Your task to perform on an android device: Search for the best rated kitchen reno kits on Lowes.com Image 0: 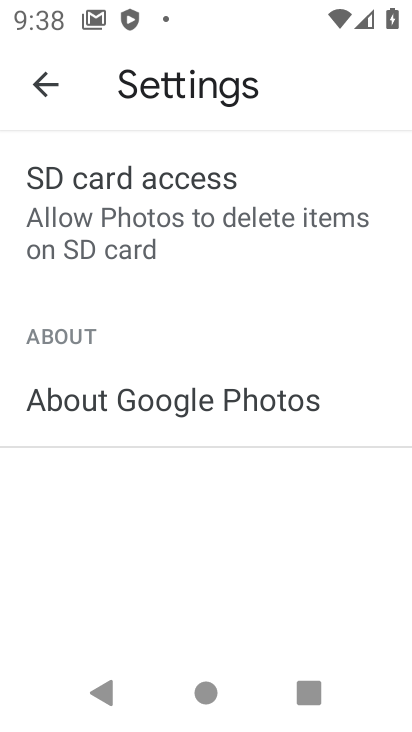
Step 0: press home button
Your task to perform on an android device: Search for the best rated kitchen reno kits on Lowes.com Image 1: 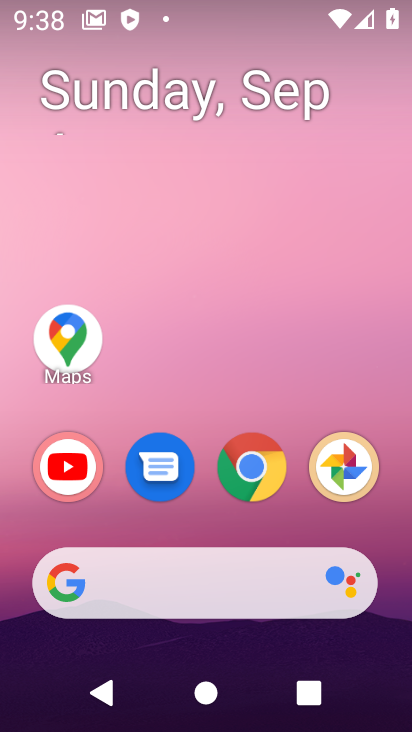
Step 1: click (250, 477)
Your task to perform on an android device: Search for the best rated kitchen reno kits on Lowes.com Image 2: 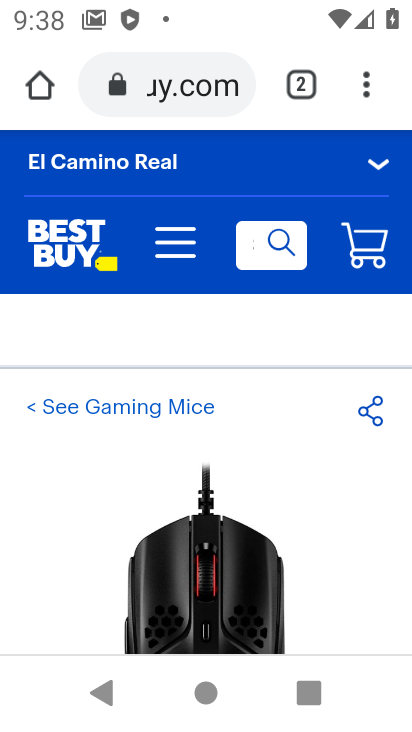
Step 2: click (209, 94)
Your task to perform on an android device: Search for the best rated kitchen reno kits on Lowes.com Image 3: 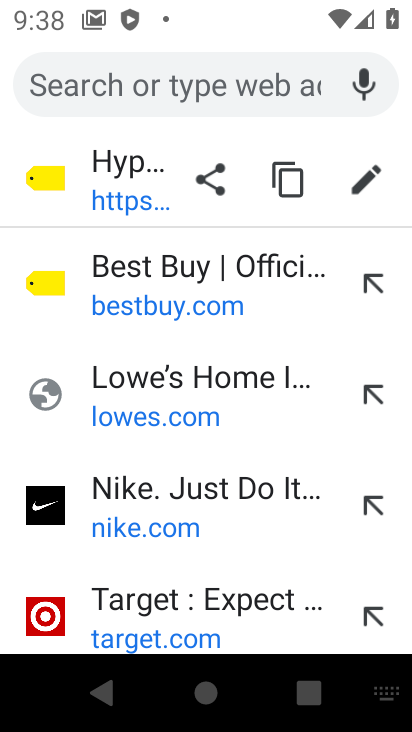
Step 3: type "lowes.com"
Your task to perform on an android device: Search for the best rated kitchen reno kits on Lowes.com Image 4: 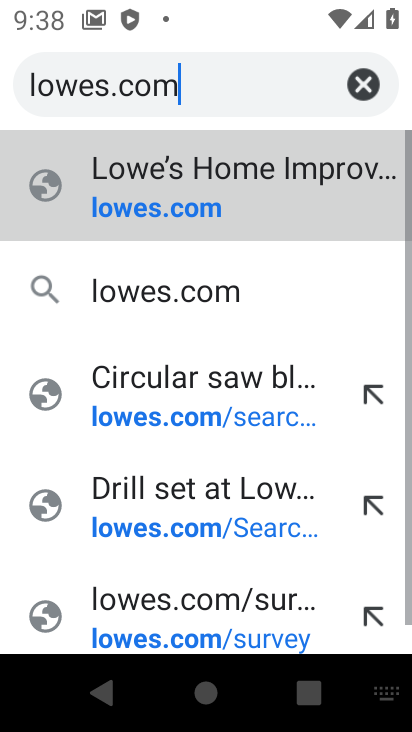
Step 4: type ""
Your task to perform on an android device: Search for the best rated kitchen reno kits on Lowes.com Image 5: 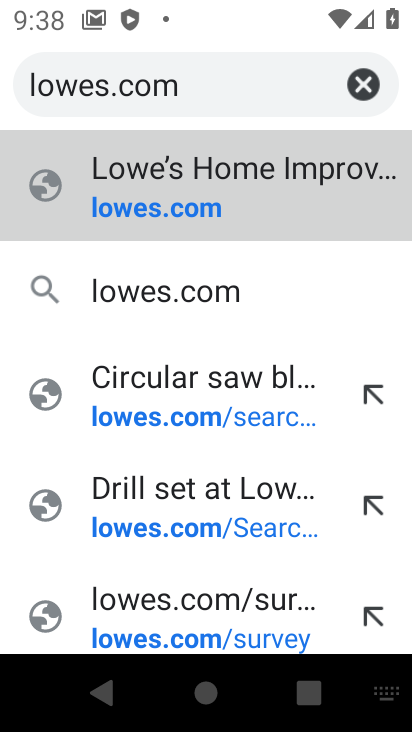
Step 5: click (124, 201)
Your task to perform on an android device: Search for the best rated kitchen reno kits on Lowes.com Image 6: 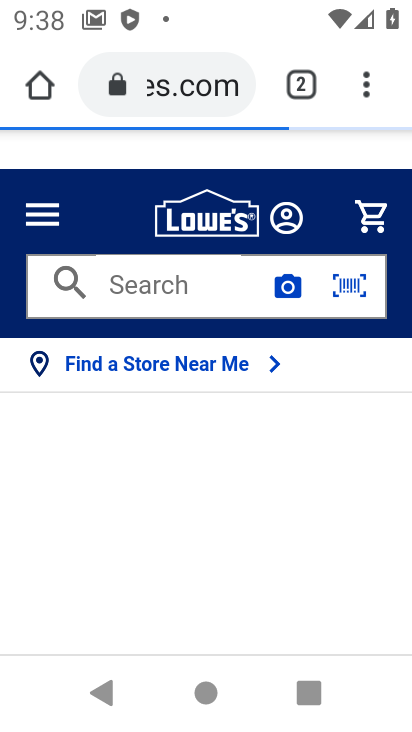
Step 6: click (189, 293)
Your task to perform on an android device: Search for the best rated kitchen reno kits on Lowes.com Image 7: 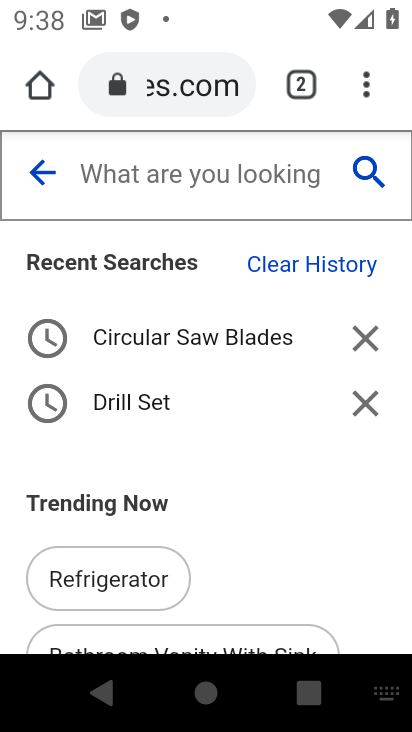
Step 7: type "kitchen reno kits"
Your task to perform on an android device: Search for the best rated kitchen reno kits on Lowes.com Image 8: 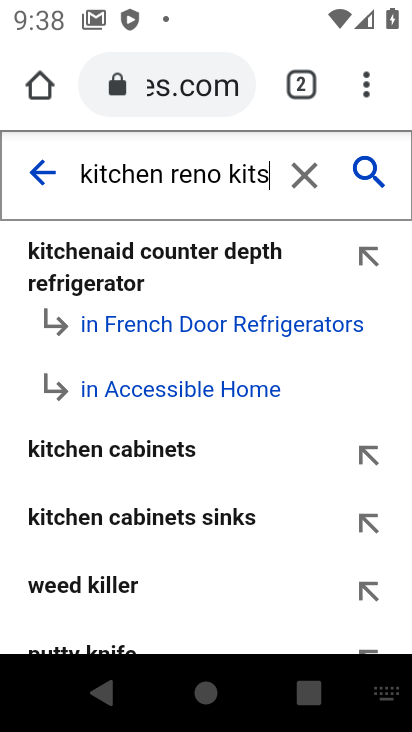
Step 8: type ""
Your task to perform on an android device: Search for the best rated kitchen reno kits on Lowes.com Image 9: 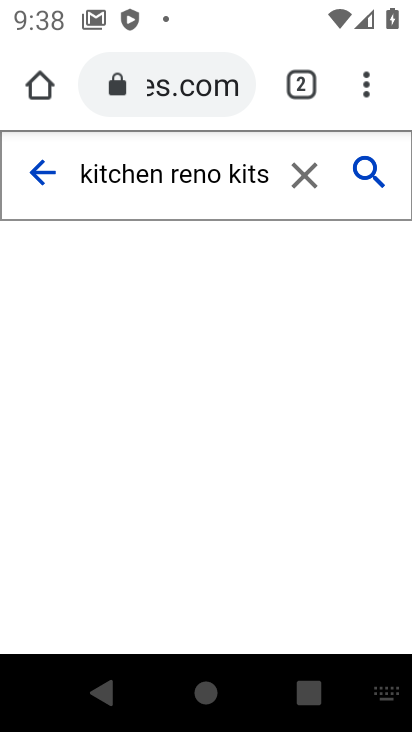
Step 9: click (359, 169)
Your task to perform on an android device: Search for the best rated kitchen reno kits on Lowes.com Image 10: 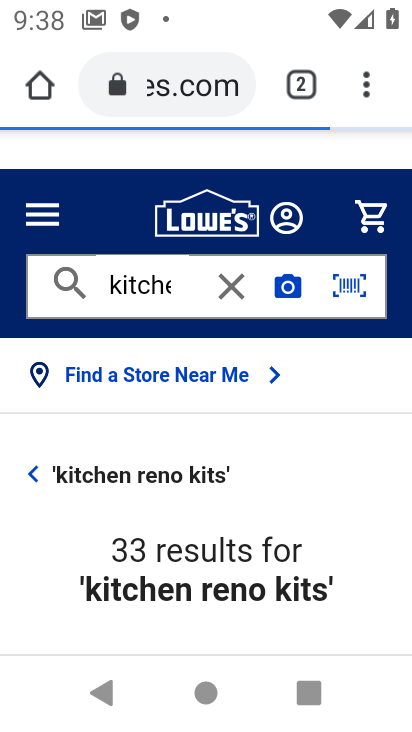
Step 10: drag from (366, 546) to (363, 111)
Your task to perform on an android device: Search for the best rated kitchen reno kits on Lowes.com Image 11: 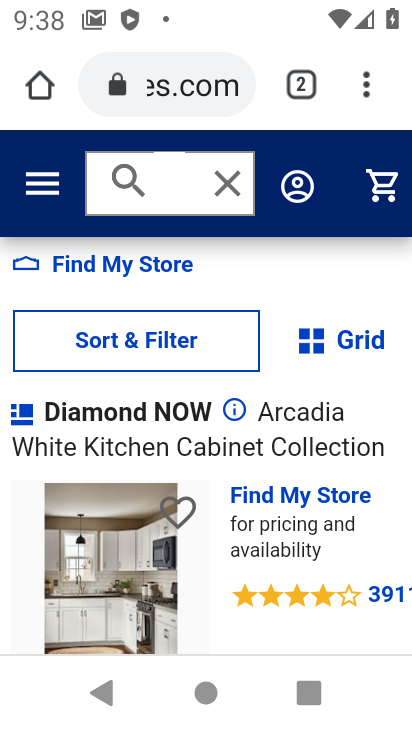
Step 11: drag from (366, 537) to (370, 183)
Your task to perform on an android device: Search for the best rated kitchen reno kits on Lowes.com Image 12: 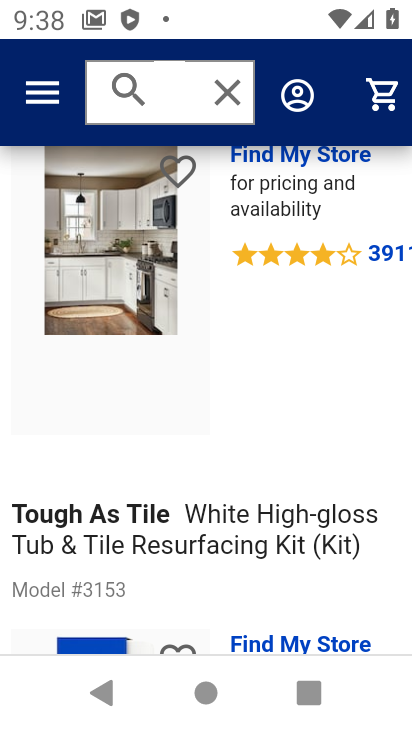
Step 12: drag from (322, 307) to (334, 597)
Your task to perform on an android device: Search for the best rated kitchen reno kits on Lowes.com Image 13: 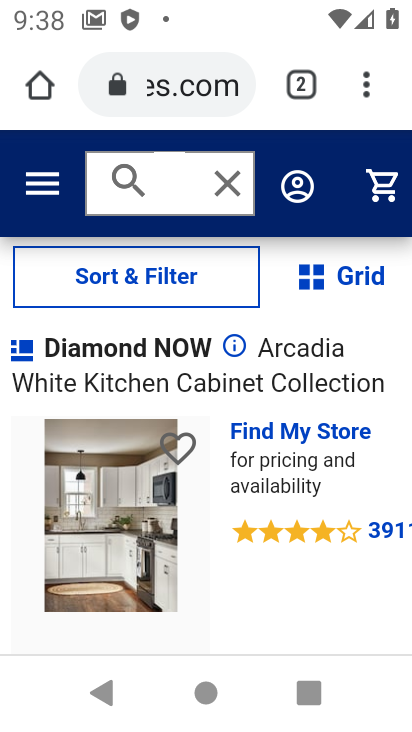
Step 13: click (170, 283)
Your task to perform on an android device: Search for the best rated kitchen reno kits on Lowes.com Image 14: 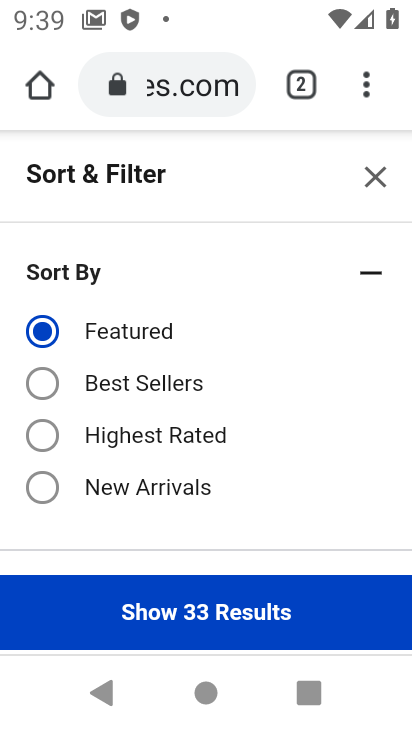
Step 14: click (45, 439)
Your task to perform on an android device: Search for the best rated kitchen reno kits on Lowes.com Image 15: 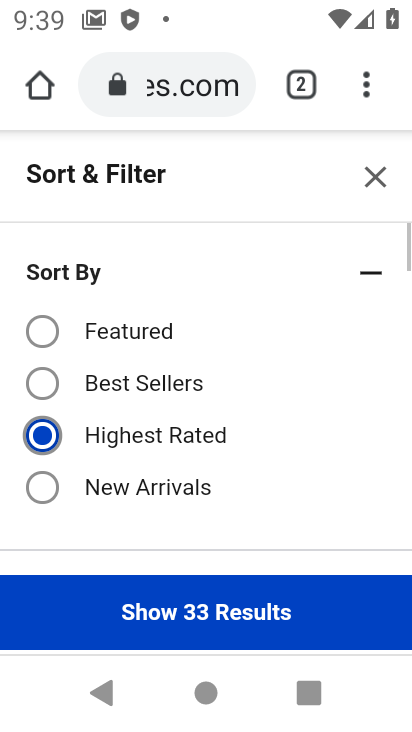
Step 15: drag from (328, 512) to (362, 172)
Your task to perform on an android device: Search for the best rated kitchen reno kits on Lowes.com Image 16: 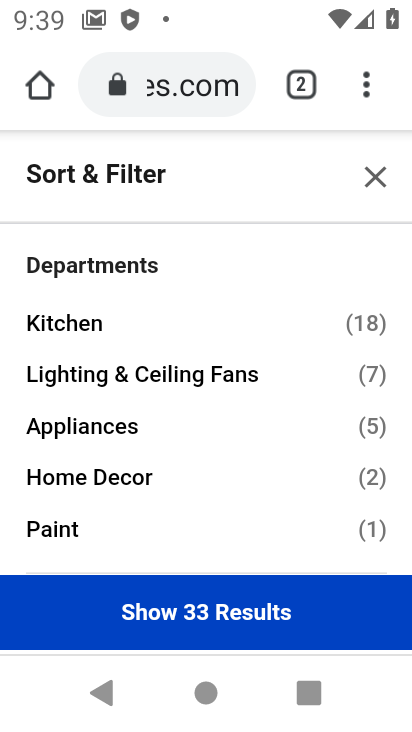
Step 16: drag from (230, 481) to (282, 179)
Your task to perform on an android device: Search for the best rated kitchen reno kits on Lowes.com Image 17: 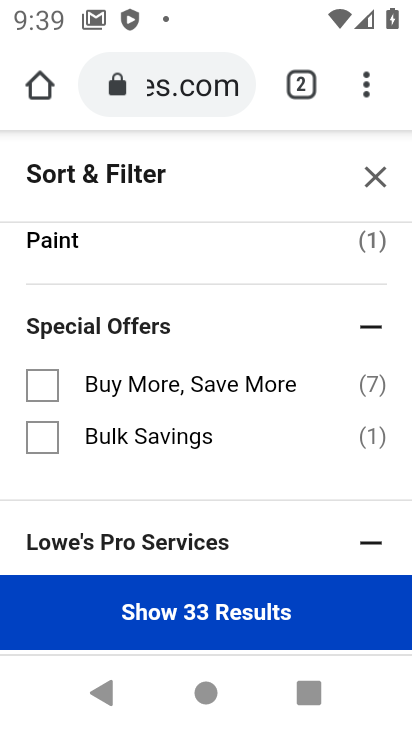
Step 17: drag from (217, 499) to (262, 168)
Your task to perform on an android device: Search for the best rated kitchen reno kits on Lowes.com Image 18: 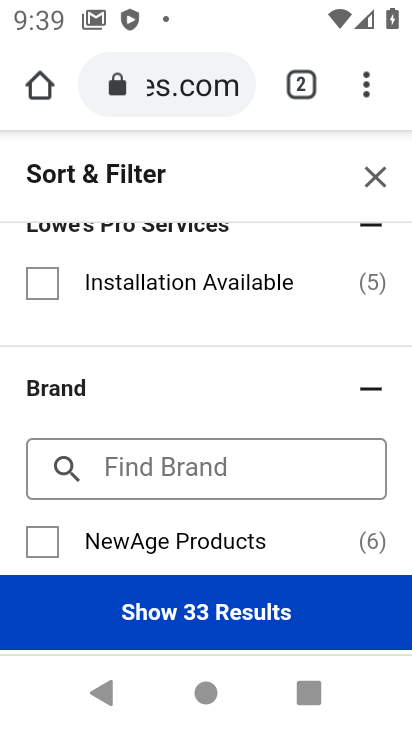
Step 18: drag from (190, 462) to (233, 232)
Your task to perform on an android device: Search for the best rated kitchen reno kits on Lowes.com Image 19: 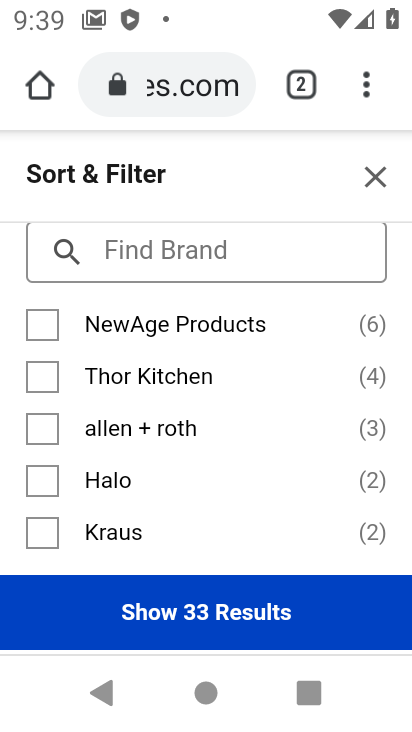
Step 19: drag from (207, 436) to (219, 185)
Your task to perform on an android device: Search for the best rated kitchen reno kits on Lowes.com Image 20: 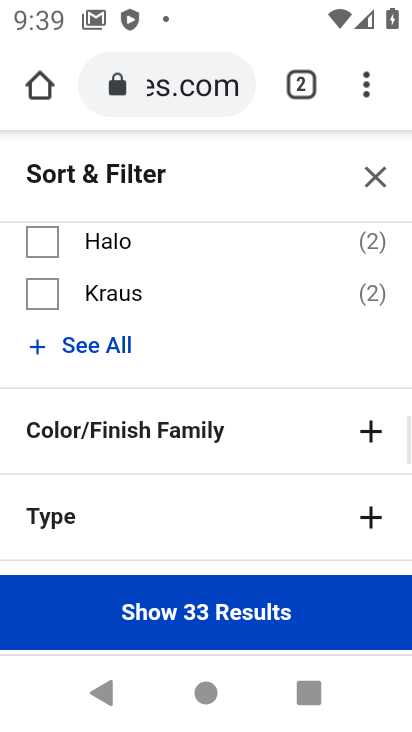
Step 20: drag from (205, 456) to (256, 142)
Your task to perform on an android device: Search for the best rated kitchen reno kits on Lowes.com Image 21: 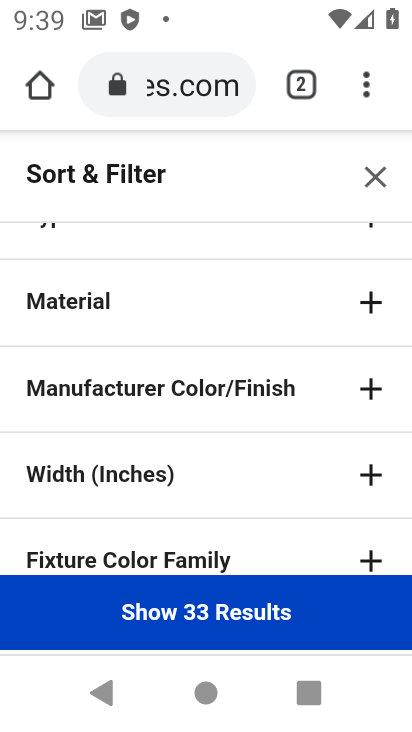
Step 21: drag from (224, 471) to (265, 119)
Your task to perform on an android device: Search for the best rated kitchen reno kits on Lowes.com Image 22: 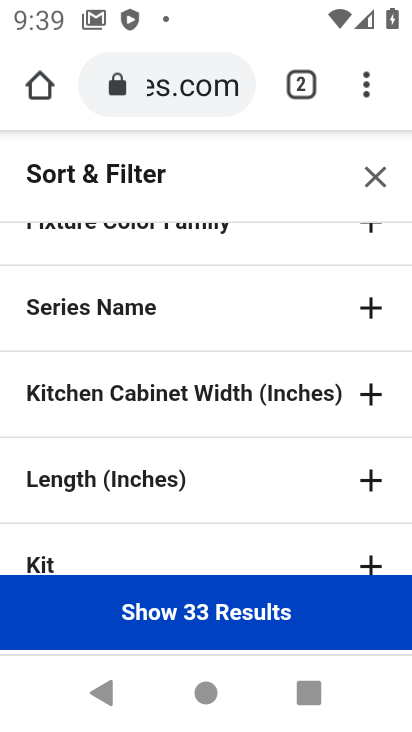
Step 22: drag from (238, 507) to (263, 155)
Your task to perform on an android device: Search for the best rated kitchen reno kits on Lowes.com Image 23: 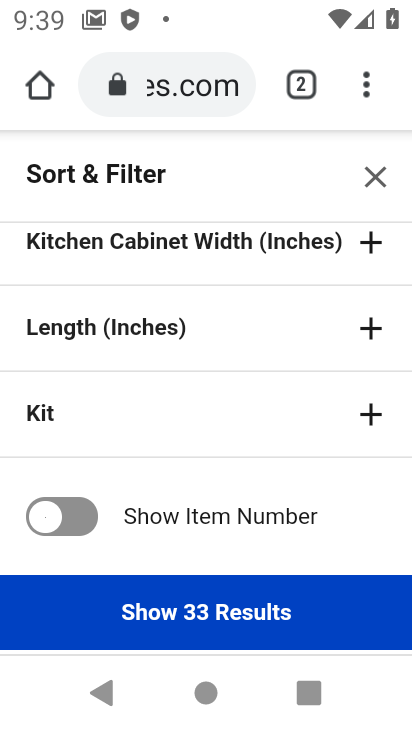
Step 23: drag from (174, 447) to (204, 238)
Your task to perform on an android device: Search for the best rated kitchen reno kits on Lowes.com Image 24: 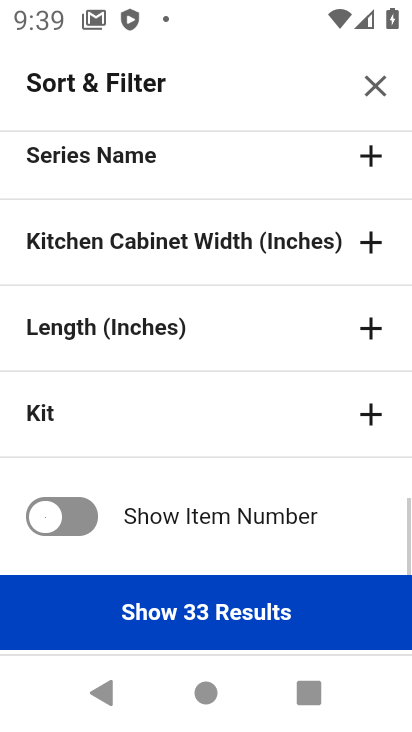
Step 24: click (216, 514)
Your task to perform on an android device: Search for the best rated kitchen reno kits on Lowes.com Image 25: 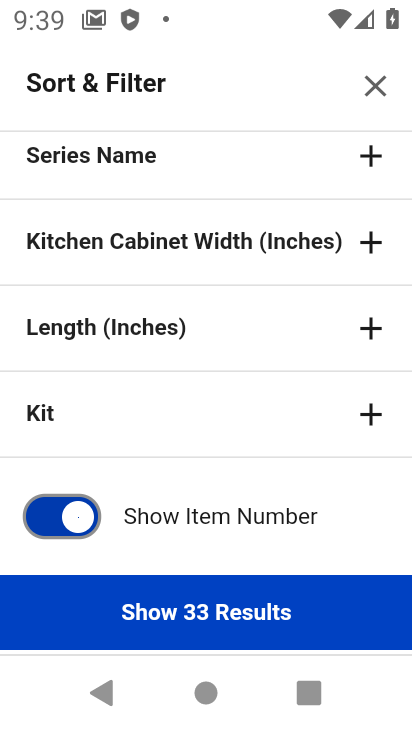
Step 25: click (296, 622)
Your task to perform on an android device: Search for the best rated kitchen reno kits on Lowes.com Image 26: 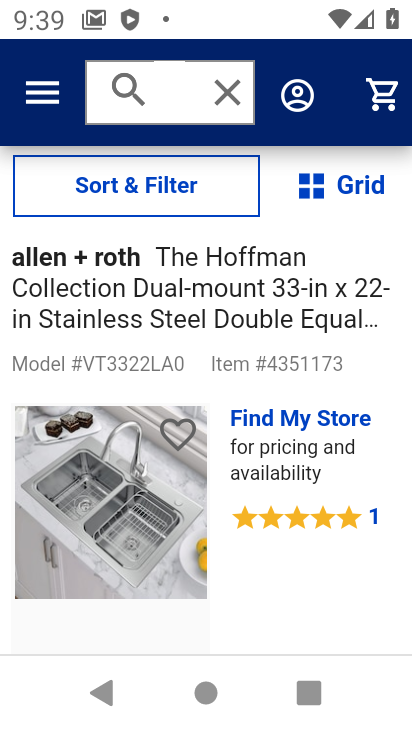
Step 26: drag from (320, 557) to (322, 235)
Your task to perform on an android device: Search for the best rated kitchen reno kits on Lowes.com Image 27: 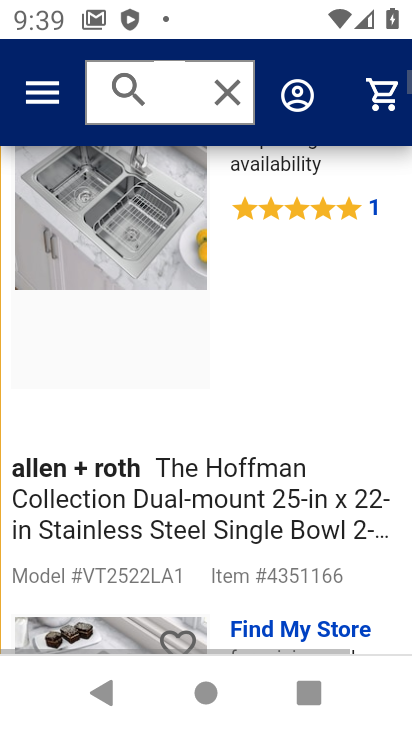
Step 27: drag from (236, 564) to (279, 287)
Your task to perform on an android device: Search for the best rated kitchen reno kits on Lowes.com Image 28: 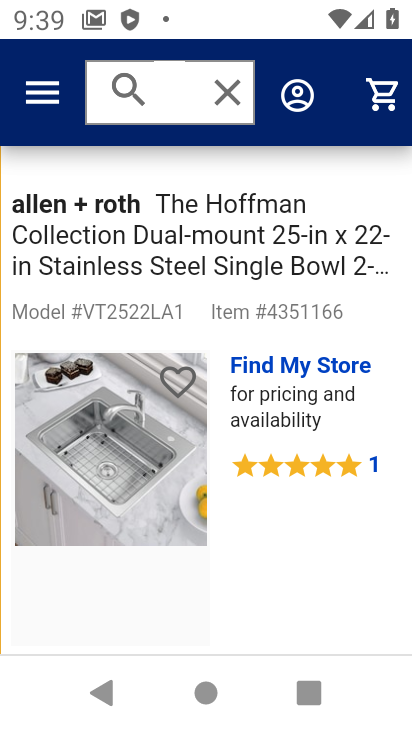
Step 28: drag from (239, 542) to (248, 266)
Your task to perform on an android device: Search for the best rated kitchen reno kits on Lowes.com Image 29: 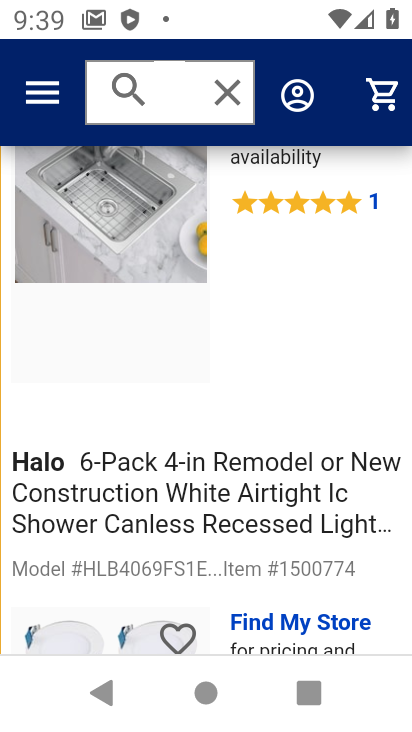
Step 29: drag from (239, 281) to (239, 229)
Your task to perform on an android device: Search for the best rated kitchen reno kits on Lowes.com Image 30: 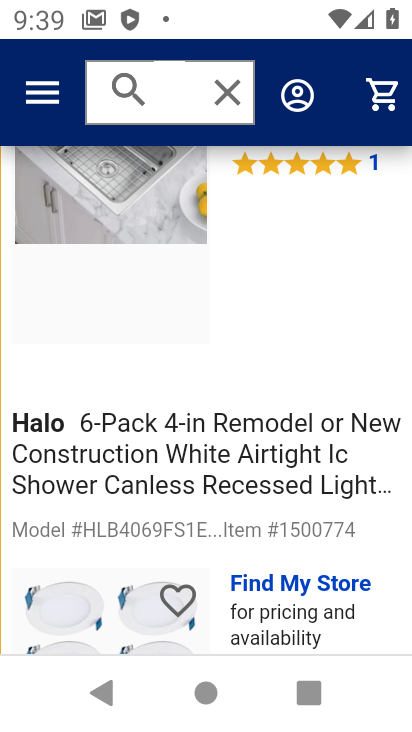
Step 30: drag from (159, 620) to (207, 300)
Your task to perform on an android device: Search for the best rated kitchen reno kits on Lowes.com Image 31: 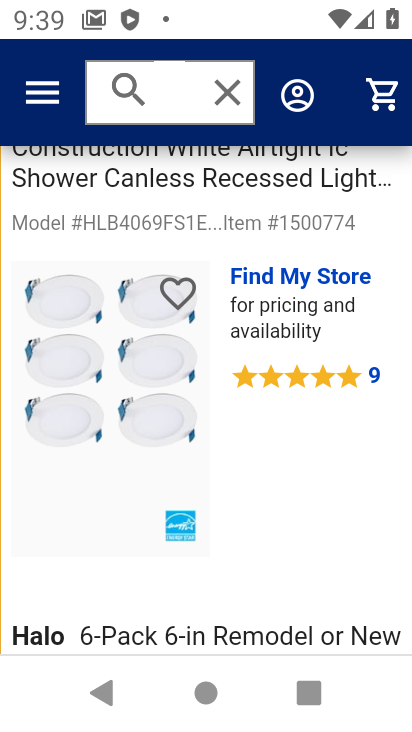
Step 31: drag from (223, 570) to (293, 307)
Your task to perform on an android device: Search for the best rated kitchen reno kits on Lowes.com Image 32: 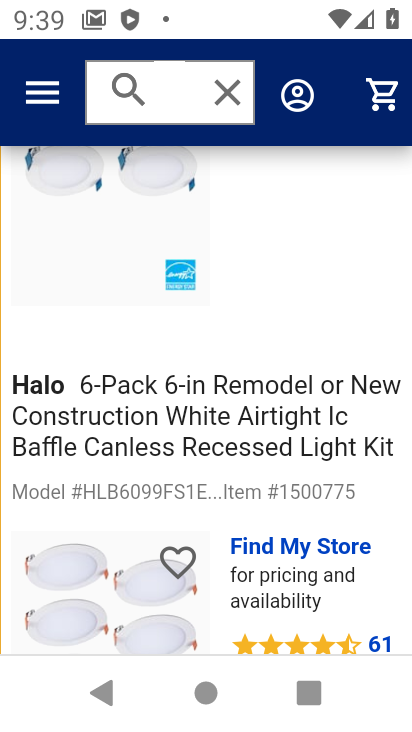
Step 32: drag from (312, 608) to (318, 259)
Your task to perform on an android device: Search for the best rated kitchen reno kits on Lowes.com Image 33: 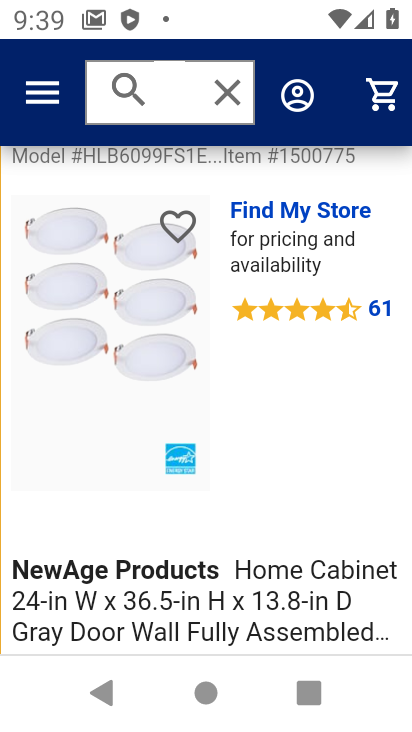
Step 33: drag from (261, 579) to (285, 267)
Your task to perform on an android device: Search for the best rated kitchen reno kits on Lowes.com Image 34: 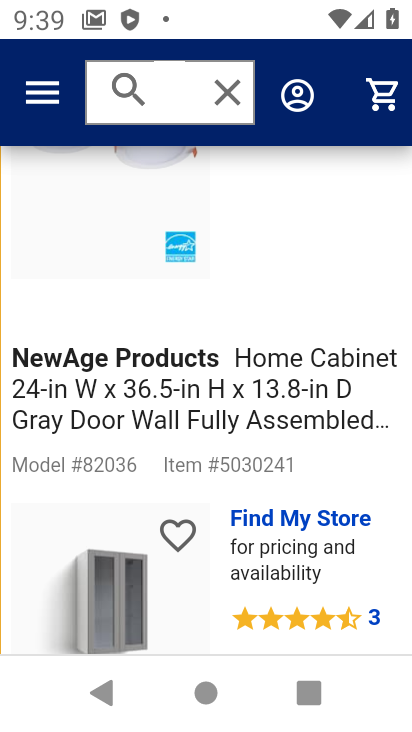
Step 34: drag from (280, 370) to (284, 319)
Your task to perform on an android device: Search for the best rated kitchen reno kits on Lowes.com Image 35: 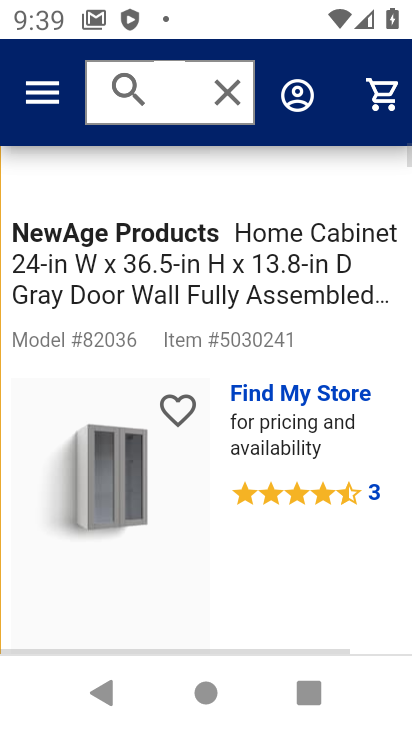
Step 35: drag from (265, 541) to (289, 186)
Your task to perform on an android device: Search for the best rated kitchen reno kits on Lowes.com Image 36: 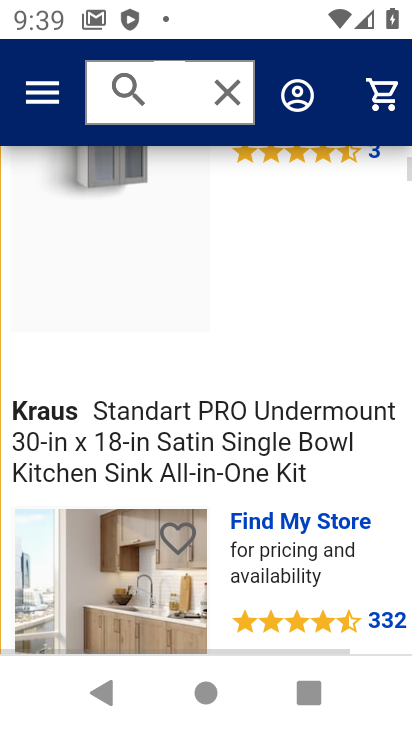
Step 36: drag from (248, 573) to (271, 280)
Your task to perform on an android device: Search for the best rated kitchen reno kits on Lowes.com Image 37: 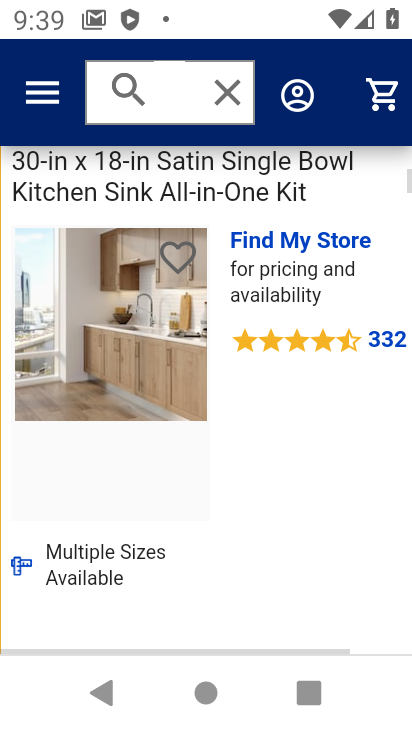
Step 37: drag from (242, 362) to (256, 231)
Your task to perform on an android device: Search for the best rated kitchen reno kits on Lowes.com Image 38: 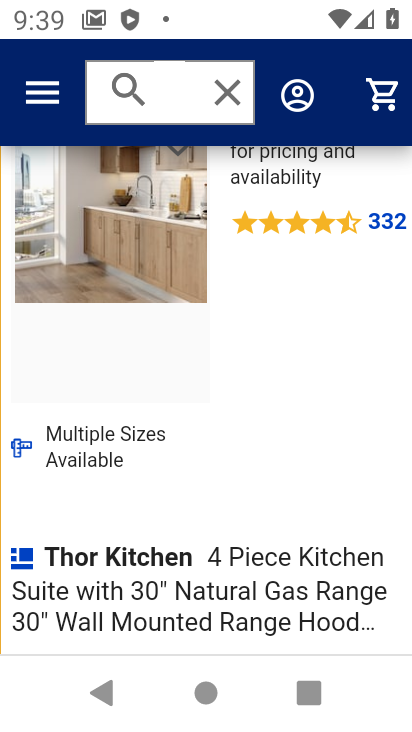
Step 38: drag from (301, 459) to (288, 91)
Your task to perform on an android device: Search for the best rated kitchen reno kits on Lowes.com Image 39: 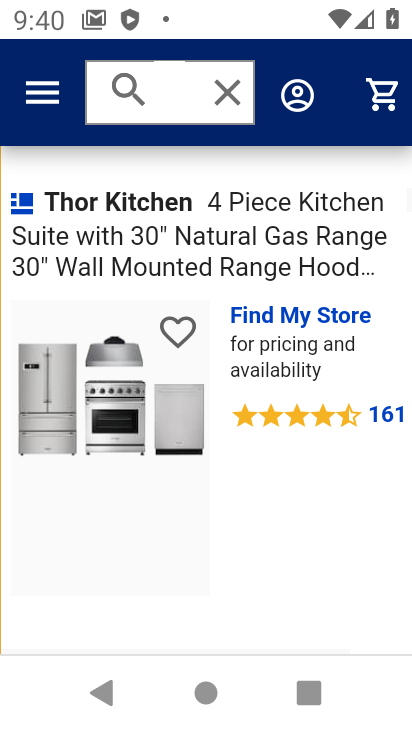
Step 39: drag from (251, 496) to (273, 14)
Your task to perform on an android device: Search for the best rated kitchen reno kits on Lowes.com Image 40: 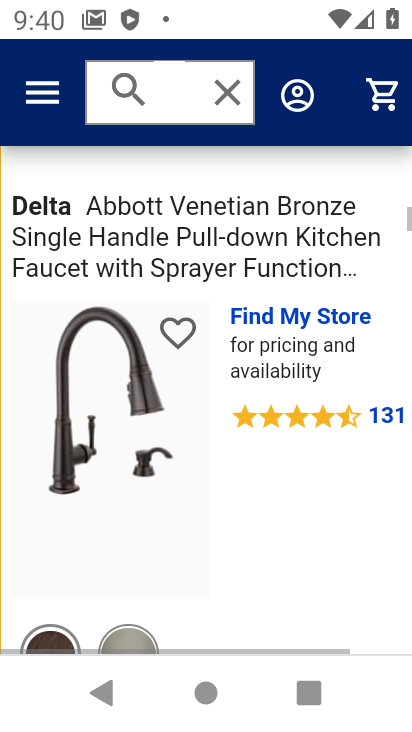
Step 40: drag from (250, 380) to (288, 40)
Your task to perform on an android device: Search for the best rated kitchen reno kits on Lowes.com Image 41: 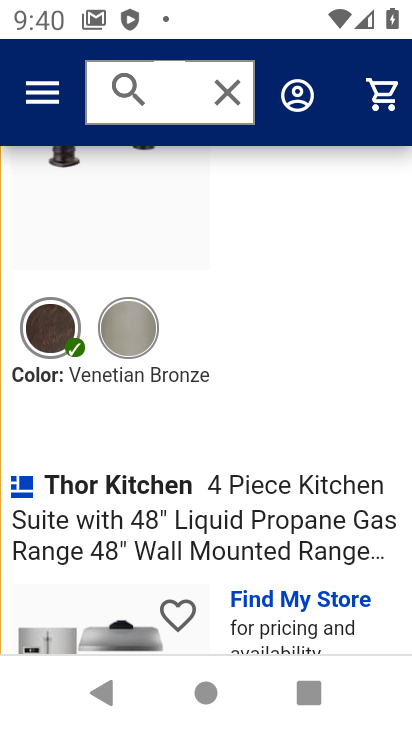
Step 41: drag from (219, 610) to (274, 225)
Your task to perform on an android device: Search for the best rated kitchen reno kits on Lowes.com Image 42: 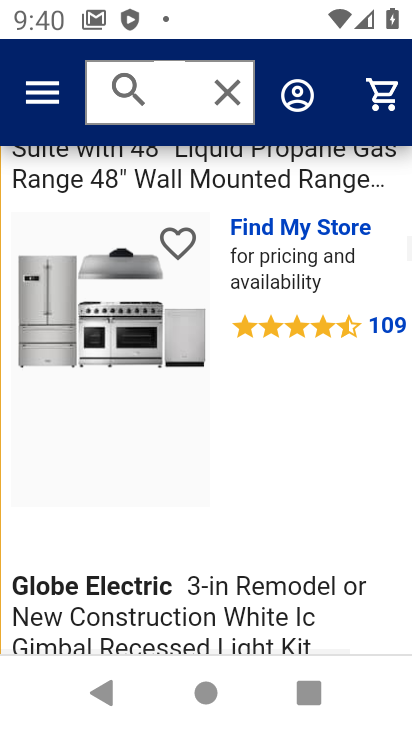
Step 42: drag from (226, 563) to (277, 295)
Your task to perform on an android device: Search for the best rated kitchen reno kits on Lowes.com Image 43: 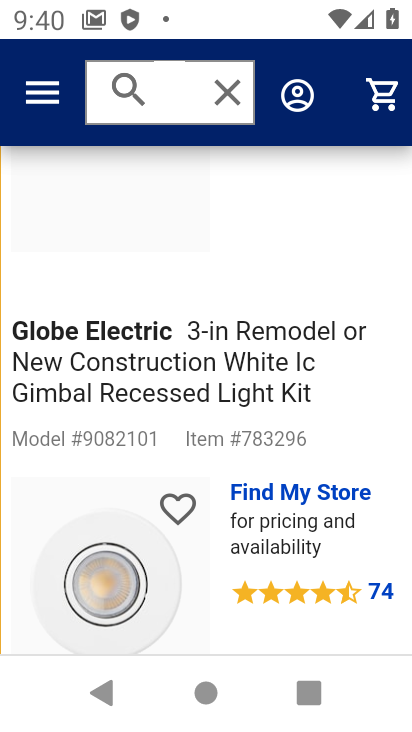
Step 43: drag from (294, 576) to (342, 258)
Your task to perform on an android device: Search for the best rated kitchen reno kits on Lowes.com Image 44: 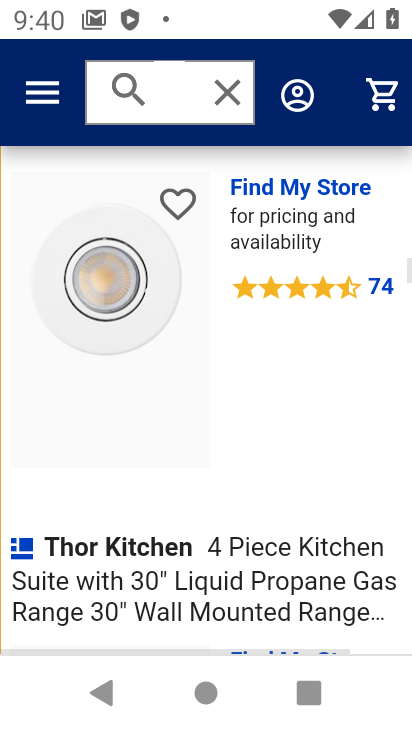
Step 44: drag from (271, 591) to (298, 192)
Your task to perform on an android device: Search for the best rated kitchen reno kits on Lowes.com Image 45: 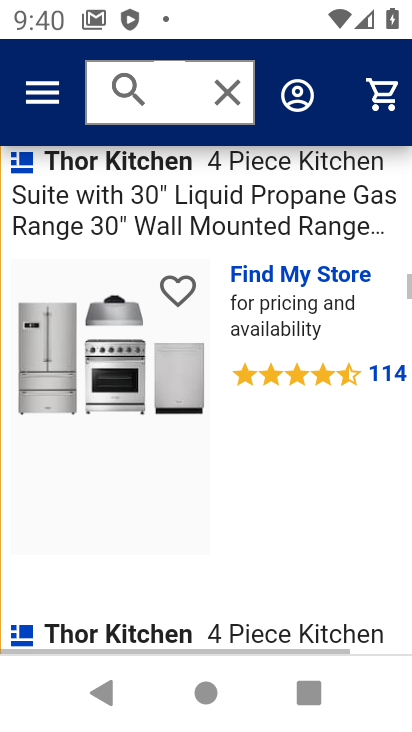
Step 45: drag from (244, 573) to (272, 241)
Your task to perform on an android device: Search for the best rated kitchen reno kits on Lowes.com Image 46: 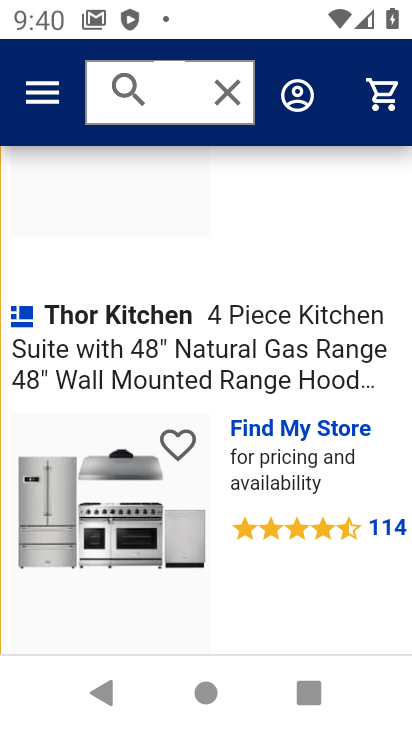
Step 46: drag from (261, 530) to (312, 137)
Your task to perform on an android device: Search for the best rated kitchen reno kits on Lowes.com Image 47: 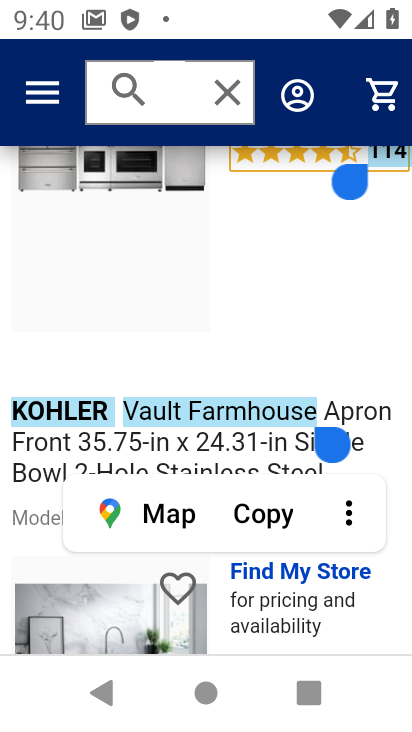
Step 47: click (307, 306)
Your task to perform on an android device: Search for the best rated kitchen reno kits on Lowes.com Image 48: 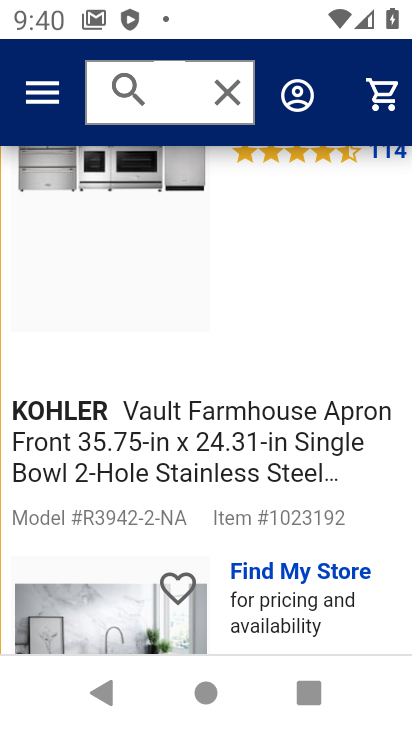
Step 48: drag from (292, 628) to (313, 180)
Your task to perform on an android device: Search for the best rated kitchen reno kits on Lowes.com Image 49: 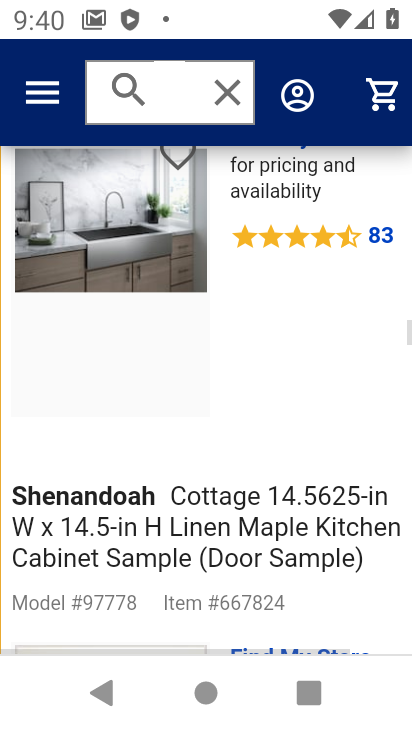
Step 49: drag from (279, 574) to (351, 26)
Your task to perform on an android device: Search for the best rated kitchen reno kits on Lowes.com Image 50: 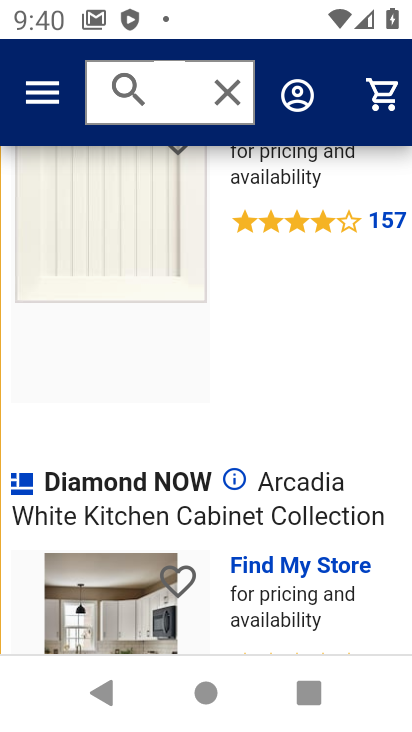
Step 50: drag from (398, 496) to (402, 212)
Your task to perform on an android device: Search for the best rated kitchen reno kits on Lowes.com Image 51: 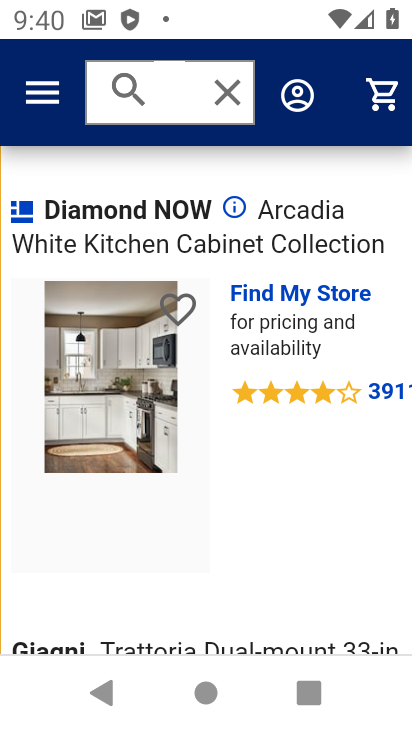
Step 51: drag from (356, 575) to (356, 217)
Your task to perform on an android device: Search for the best rated kitchen reno kits on Lowes.com Image 52: 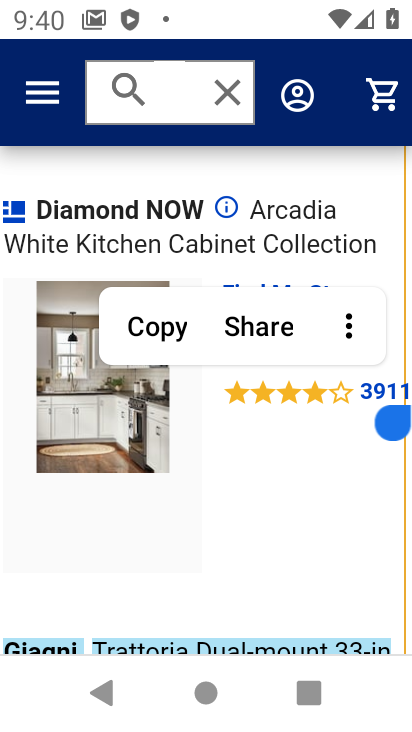
Step 52: click (304, 513)
Your task to perform on an android device: Search for the best rated kitchen reno kits on Lowes.com Image 53: 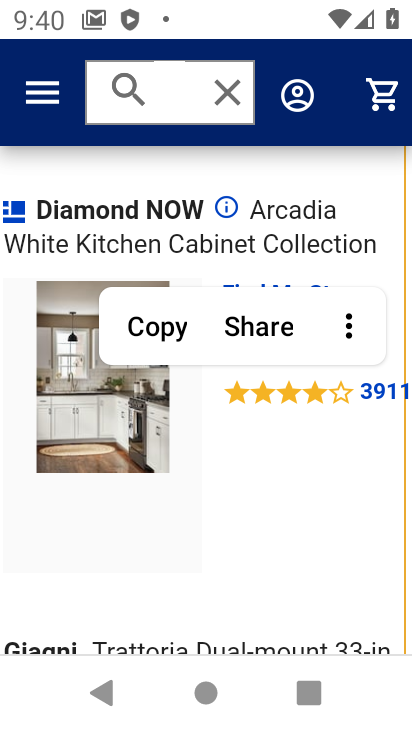
Step 53: task complete